Your task to perform on an android device: Go to display settings Image 0: 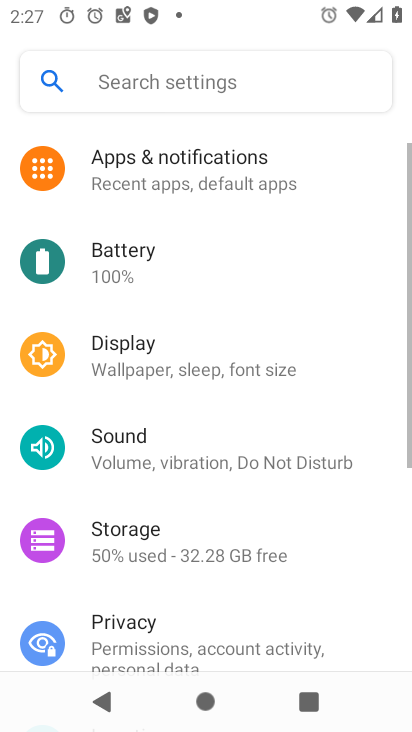
Step 0: press home button
Your task to perform on an android device: Go to display settings Image 1: 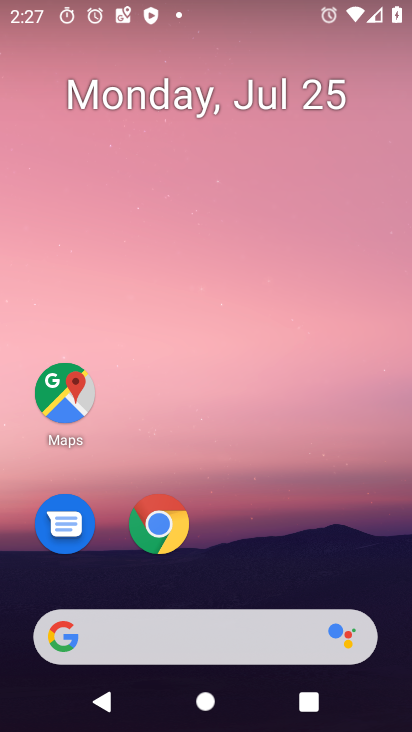
Step 1: drag from (236, 575) to (120, 105)
Your task to perform on an android device: Go to display settings Image 2: 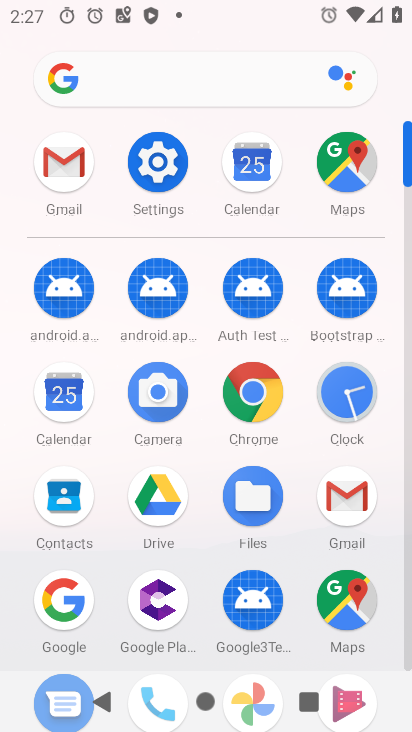
Step 2: click (148, 160)
Your task to perform on an android device: Go to display settings Image 3: 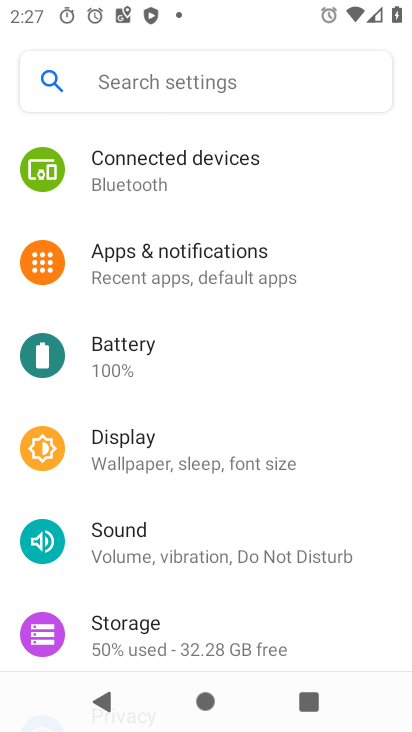
Step 3: click (125, 444)
Your task to perform on an android device: Go to display settings Image 4: 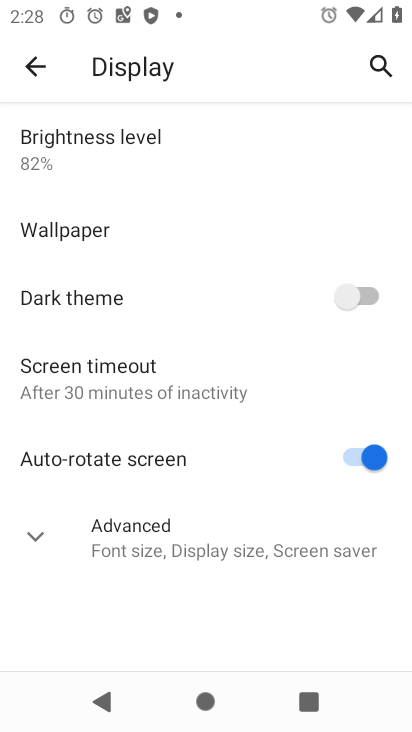
Step 4: task complete